Your task to perform on an android device: Open Chrome and go to the settings page Image 0: 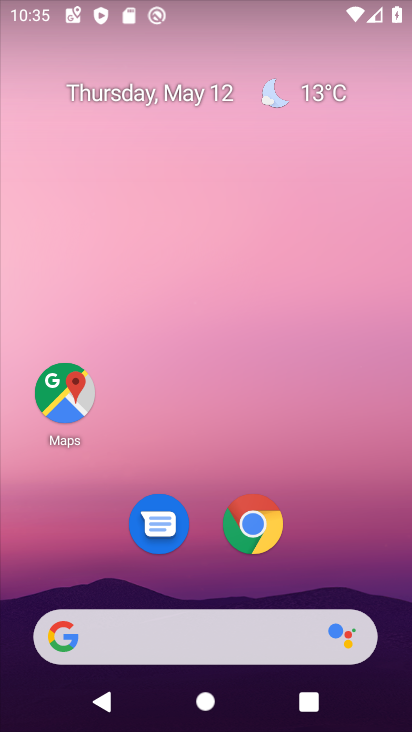
Step 0: click (267, 523)
Your task to perform on an android device: Open Chrome and go to the settings page Image 1: 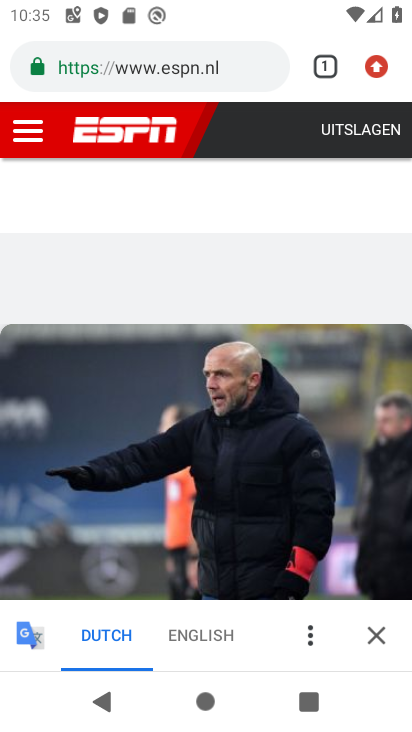
Step 1: click (379, 64)
Your task to perform on an android device: Open Chrome and go to the settings page Image 2: 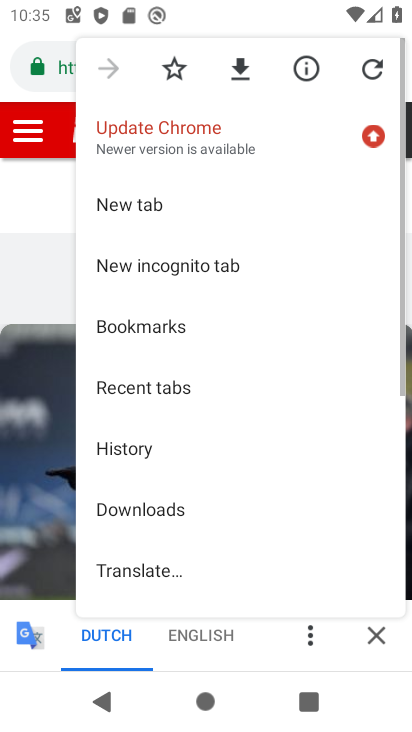
Step 2: click (379, 64)
Your task to perform on an android device: Open Chrome and go to the settings page Image 3: 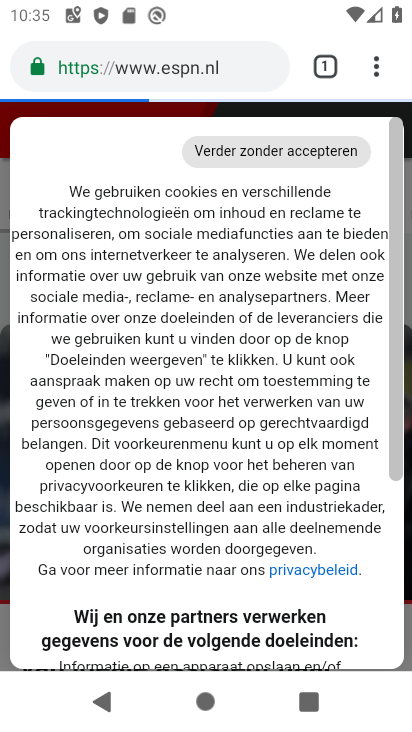
Step 3: click (379, 64)
Your task to perform on an android device: Open Chrome and go to the settings page Image 4: 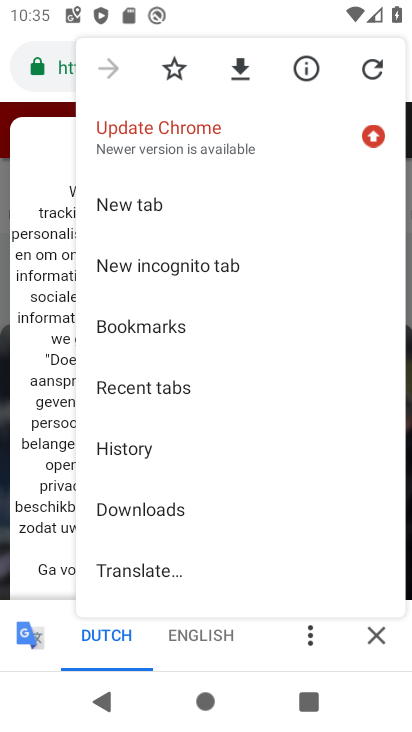
Step 4: drag from (228, 497) to (193, 173)
Your task to perform on an android device: Open Chrome and go to the settings page Image 5: 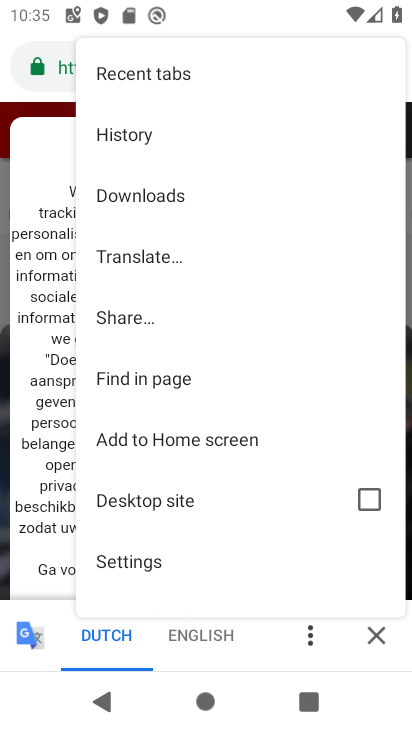
Step 5: click (175, 552)
Your task to perform on an android device: Open Chrome and go to the settings page Image 6: 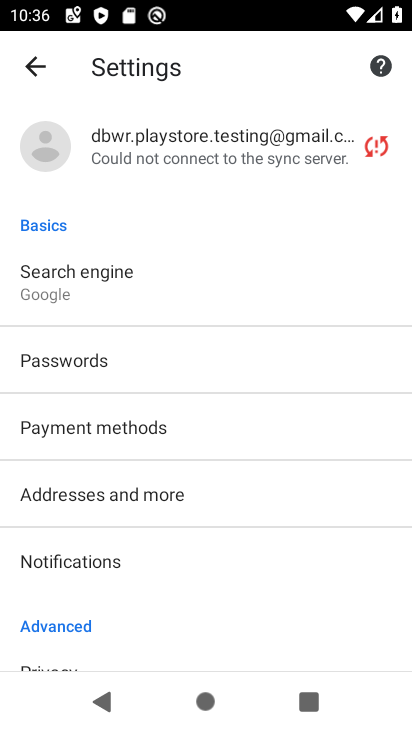
Step 6: task complete